Your task to perform on an android device: Check the news Image 0: 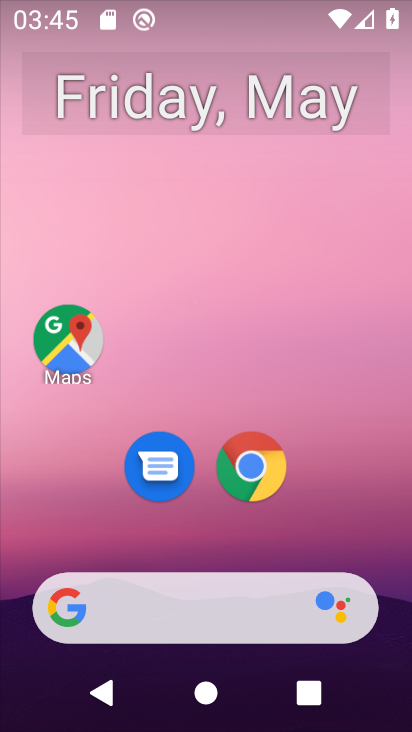
Step 0: drag from (398, 612) to (364, 264)
Your task to perform on an android device: Check the news Image 1: 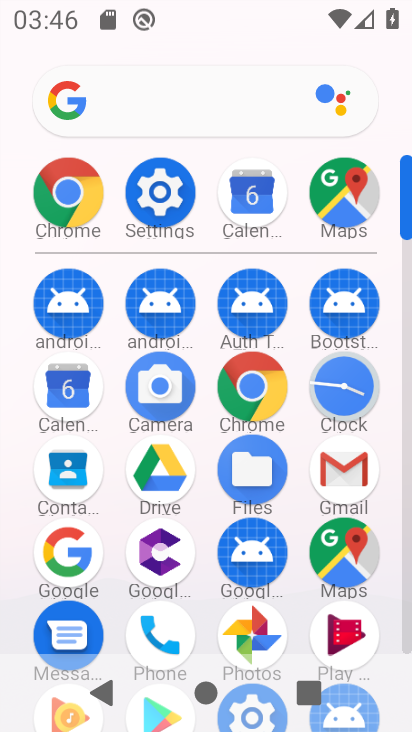
Step 1: press back button
Your task to perform on an android device: Check the news Image 2: 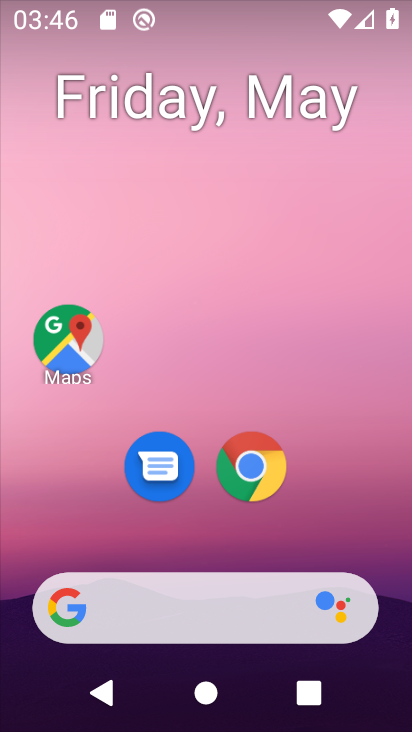
Step 2: drag from (92, 225) to (320, 268)
Your task to perform on an android device: Check the news Image 3: 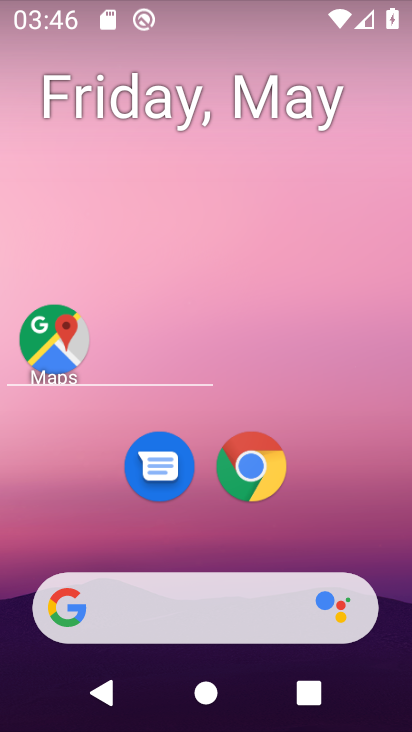
Step 3: drag from (37, 235) to (394, 197)
Your task to perform on an android device: Check the news Image 4: 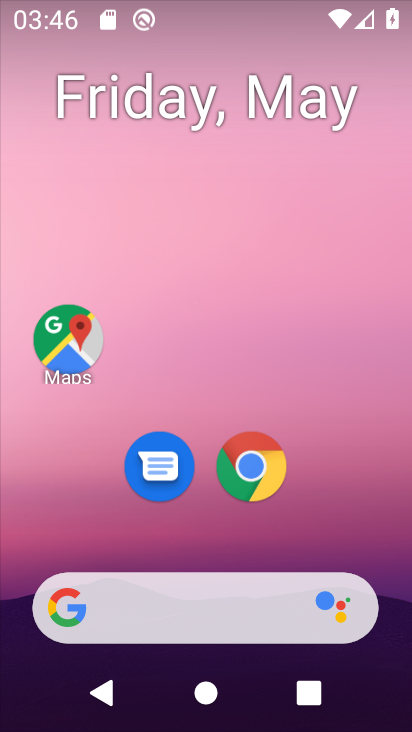
Step 4: click (355, 276)
Your task to perform on an android device: Check the news Image 5: 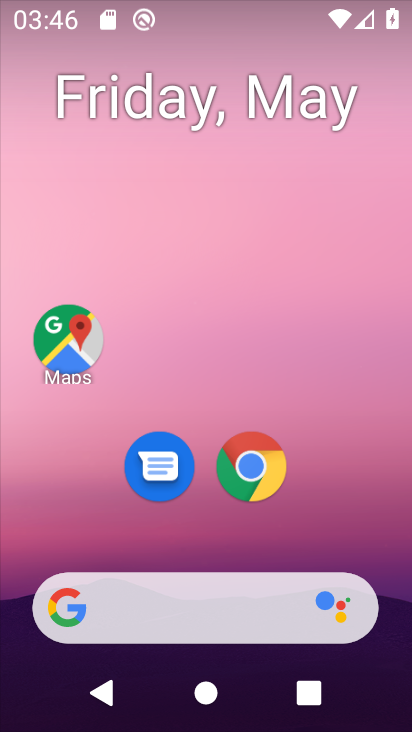
Step 5: task complete